Your task to perform on an android device: open chrome privacy settings Image 0: 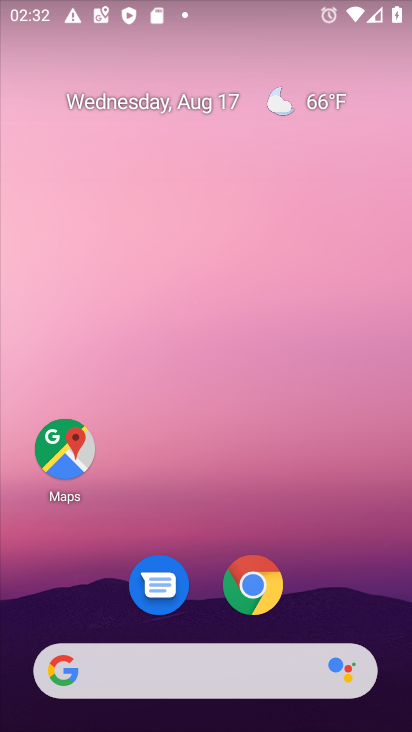
Step 0: click (251, 584)
Your task to perform on an android device: open chrome privacy settings Image 1: 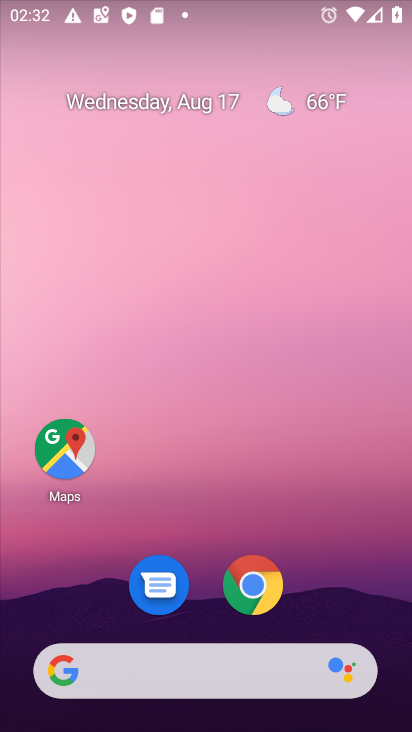
Step 1: click (251, 584)
Your task to perform on an android device: open chrome privacy settings Image 2: 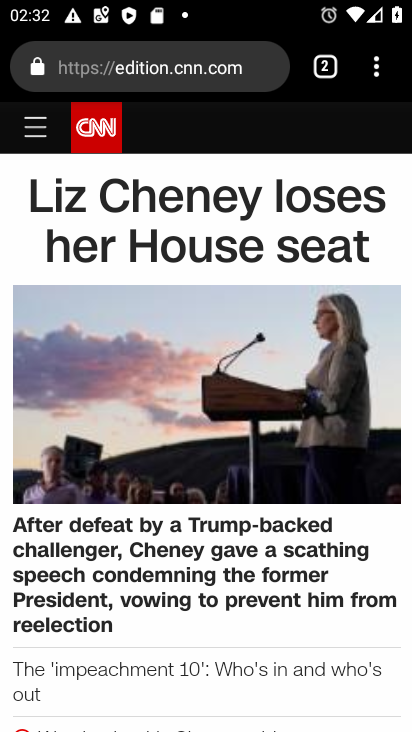
Step 2: click (375, 73)
Your task to perform on an android device: open chrome privacy settings Image 3: 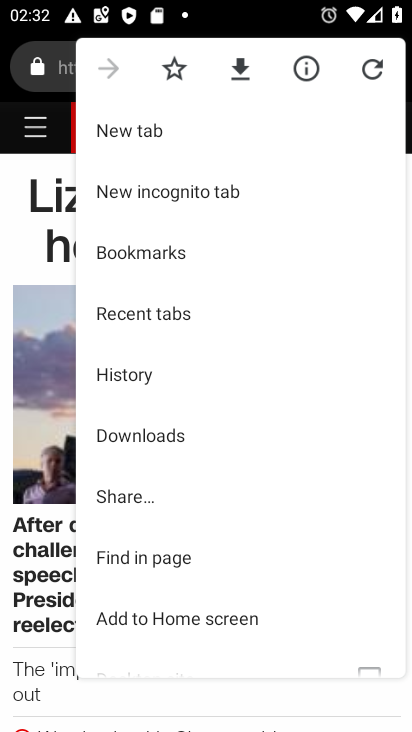
Step 3: drag from (198, 483) to (251, 156)
Your task to perform on an android device: open chrome privacy settings Image 4: 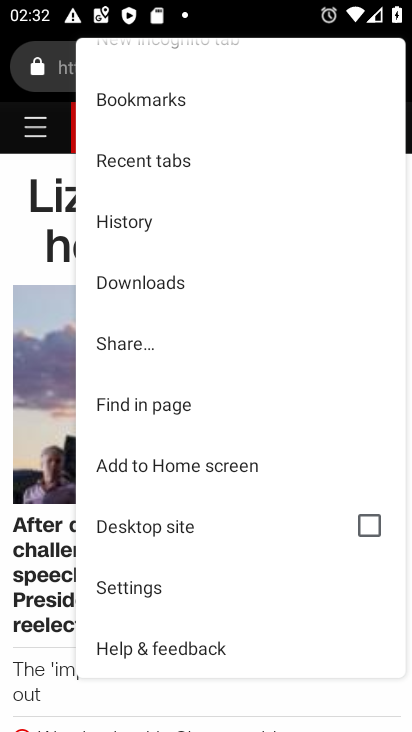
Step 4: click (162, 584)
Your task to perform on an android device: open chrome privacy settings Image 5: 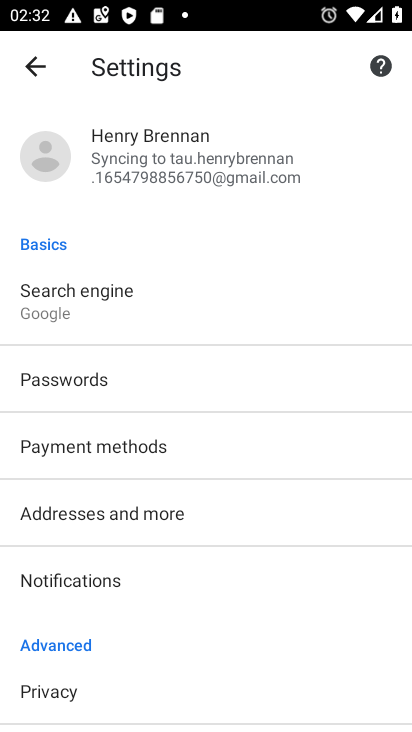
Step 5: drag from (162, 572) to (190, 332)
Your task to perform on an android device: open chrome privacy settings Image 6: 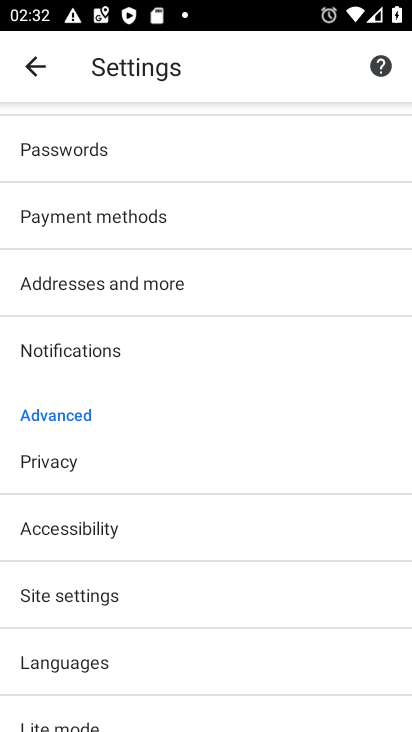
Step 6: click (169, 707)
Your task to perform on an android device: open chrome privacy settings Image 7: 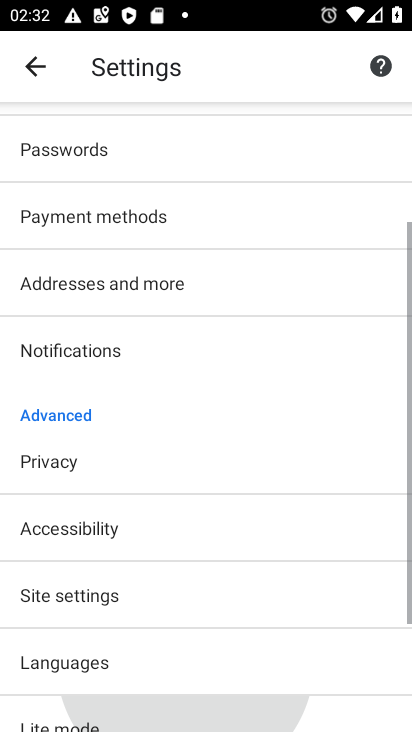
Step 7: click (68, 686)
Your task to perform on an android device: open chrome privacy settings Image 8: 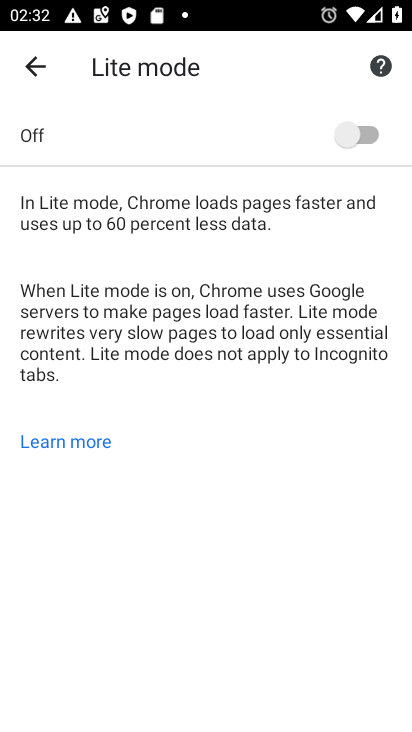
Step 8: click (36, 59)
Your task to perform on an android device: open chrome privacy settings Image 9: 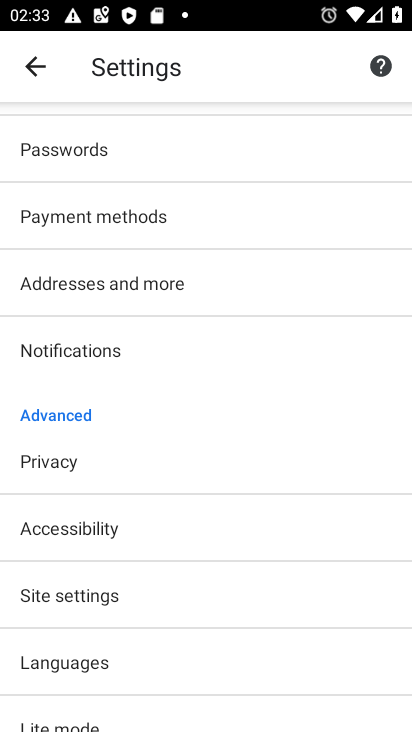
Step 9: click (60, 453)
Your task to perform on an android device: open chrome privacy settings Image 10: 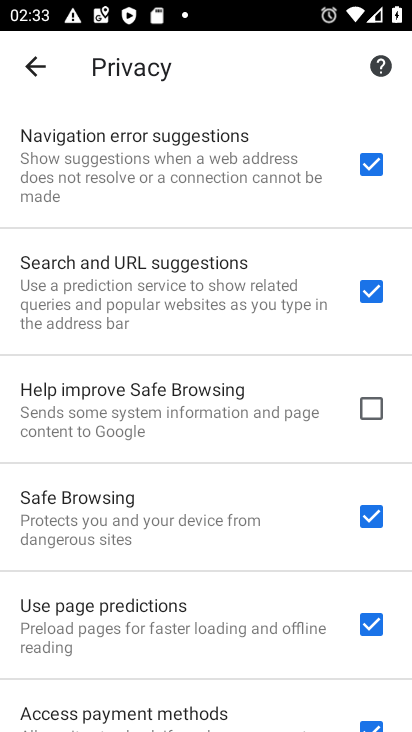
Step 10: task complete